Your task to perform on an android device: Open maps Image 0: 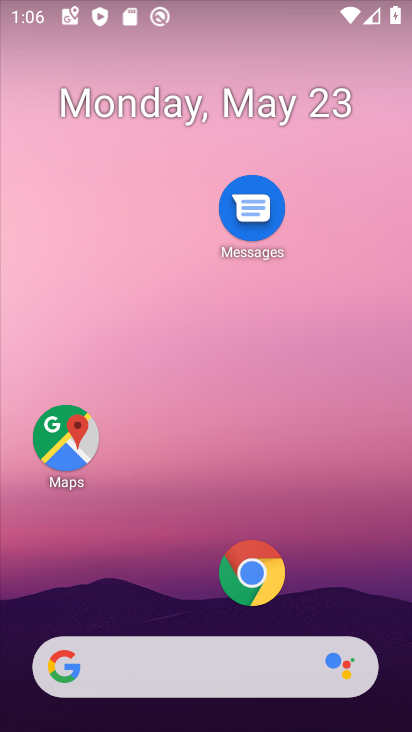
Step 0: drag from (403, 673) to (337, 7)
Your task to perform on an android device: Open maps Image 1: 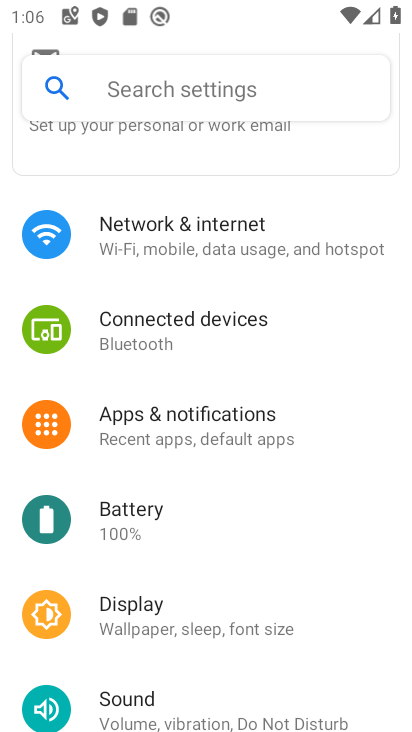
Step 1: press home button
Your task to perform on an android device: Open maps Image 2: 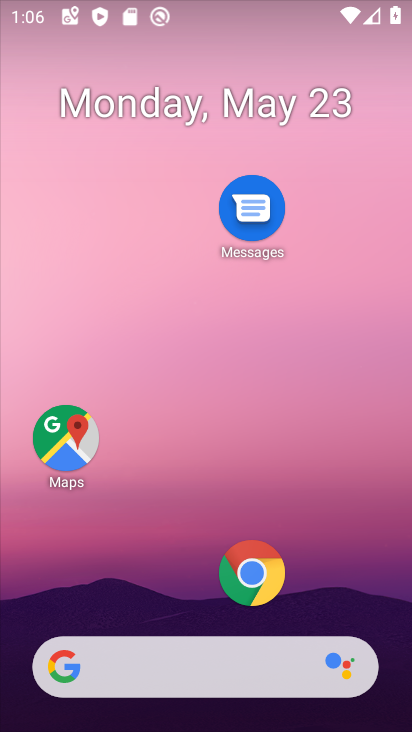
Step 2: drag from (76, 580) to (111, 49)
Your task to perform on an android device: Open maps Image 3: 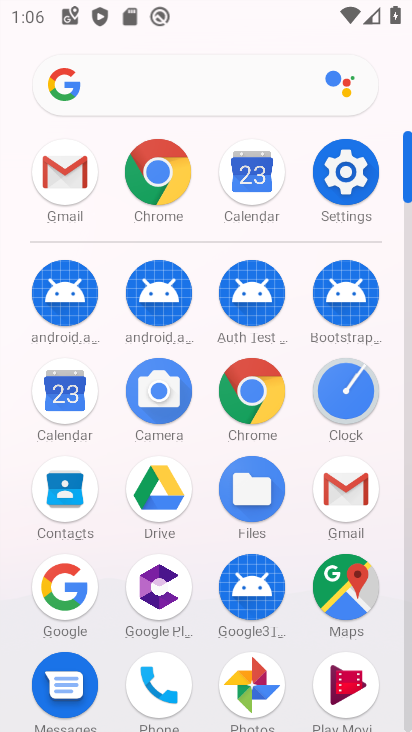
Step 3: click (356, 589)
Your task to perform on an android device: Open maps Image 4: 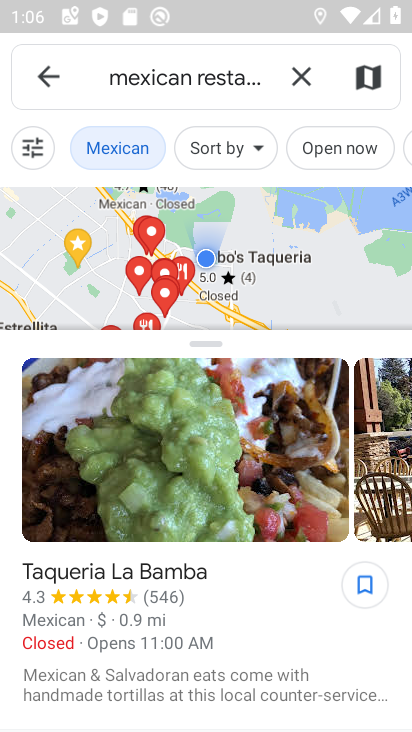
Step 4: task complete